Your task to perform on an android device: show emergency info Image 0: 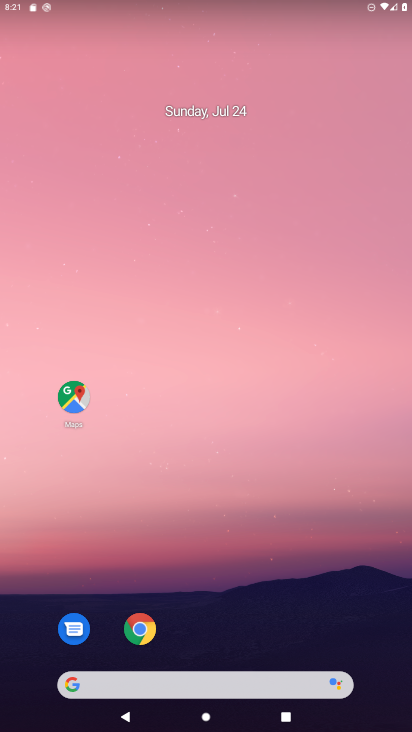
Step 0: drag from (315, 624) to (208, 4)
Your task to perform on an android device: show emergency info Image 1: 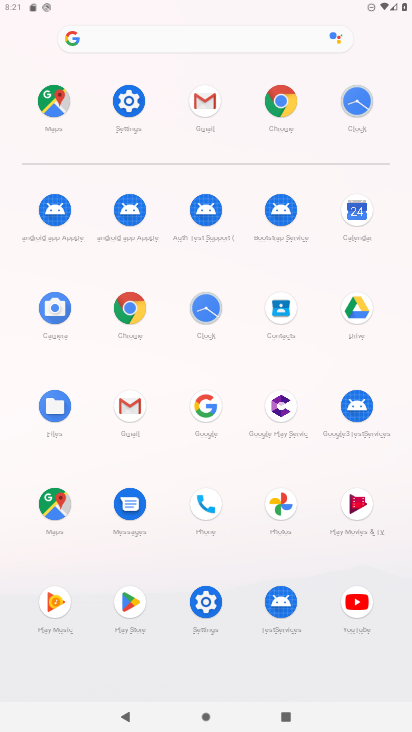
Step 1: click (206, 597)
Your task to perform on an android device: show emergency info Image 2: 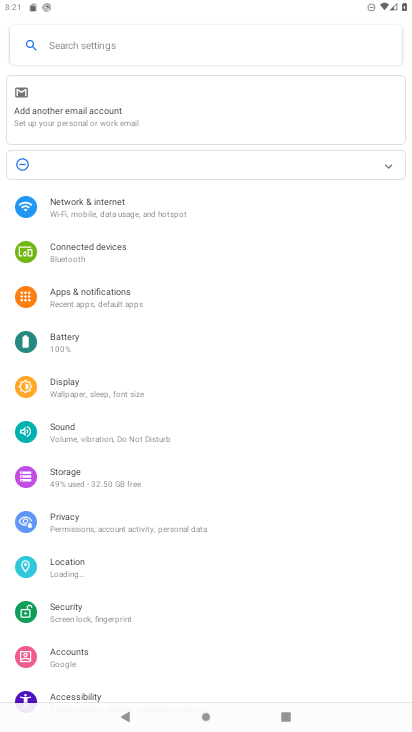
Step 2: drag from (76, 677) to (103, 173)
Your task to perform on an android device: show emergency info Image 3: 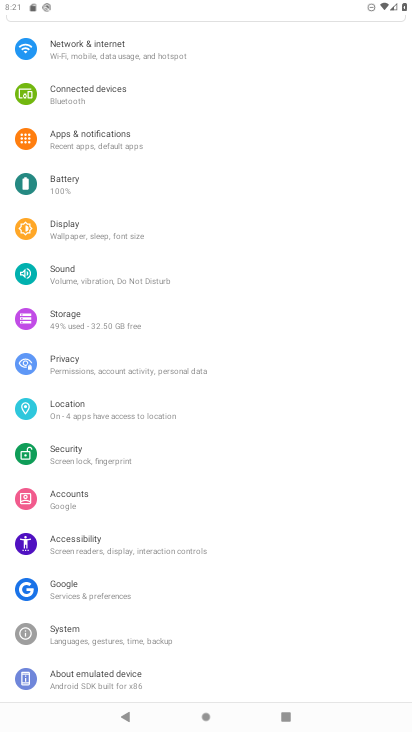
Step 3: click (94, 674)
Your task to perform on an android device: show emergency info Image 4: 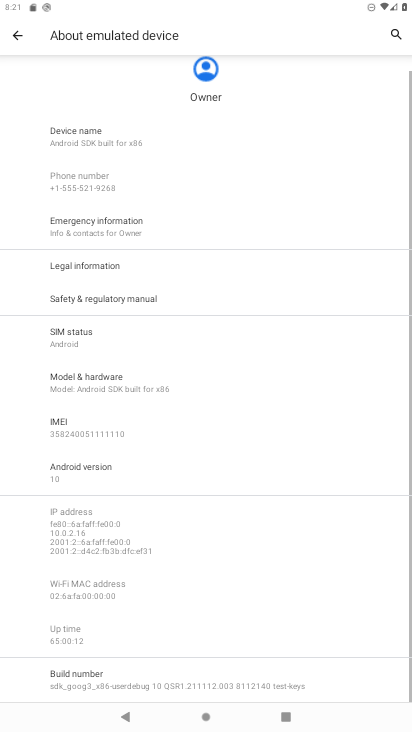
Step 4: click (98, 232)
Your task to perform on an android device: show emergency info Image 5: 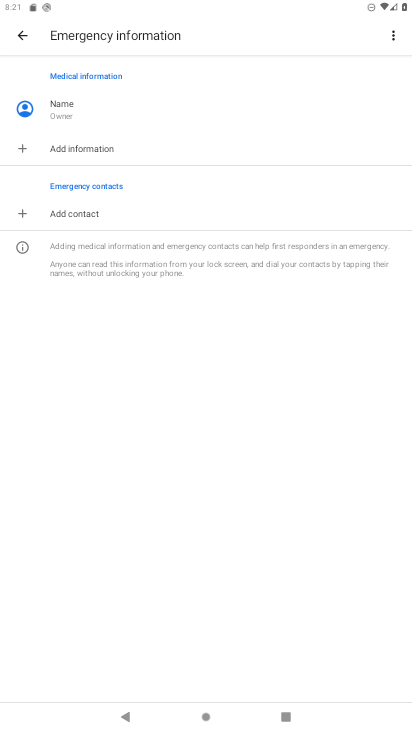
Step 5: task complete